Your task to perform on an android device: Open wifi settings Image 0: 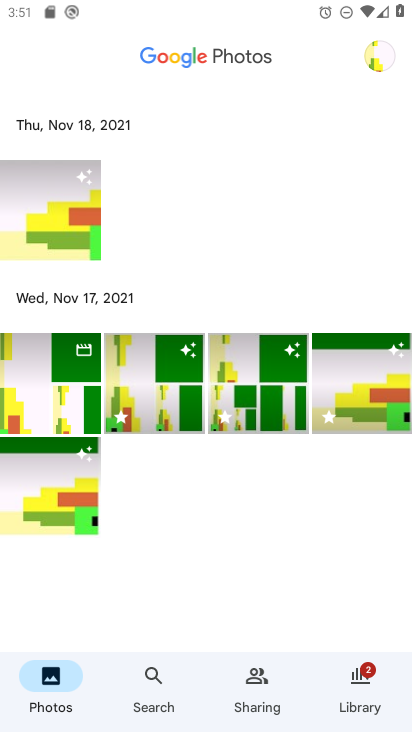
Step 0: press home button
Your task to perform on an android device: Open wifi settings Image 1: 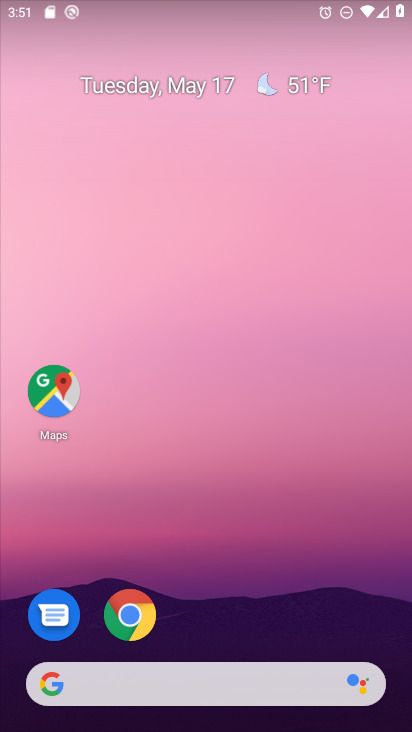
Step 1: drag from (221, 647) to (219, 108)
Your task to perform on an android device: Open wifi settings Image 2: 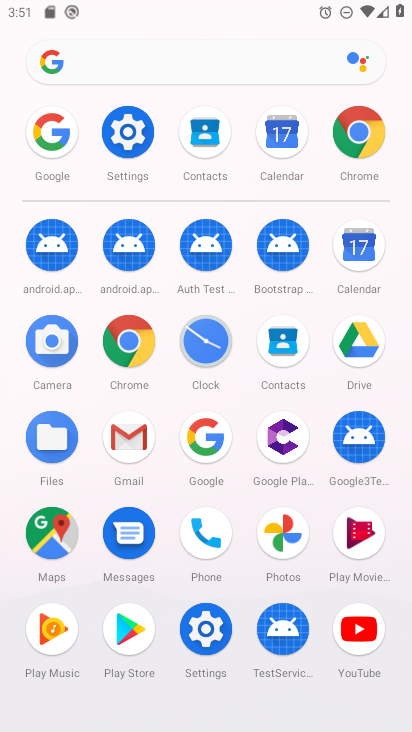
Step 2: click (126, 123)
Your task to perform on an android device: Open wifi settings Image 3: 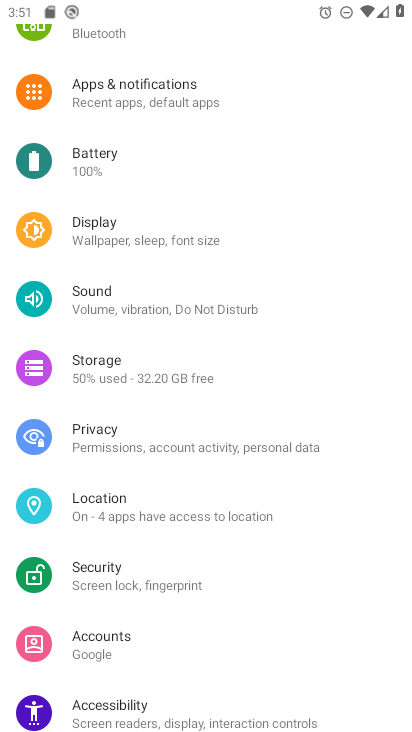
Step 3: drag from (165, 138) to (228, 649)
Your task to perform on an android device: Open wifi settings Image 4: 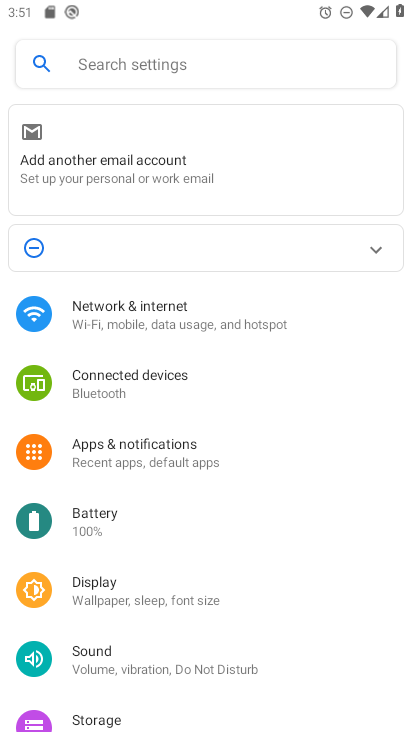
Step 4: click (199, 301)
Your task to perform on an android device: Open wifi settings Image 5: 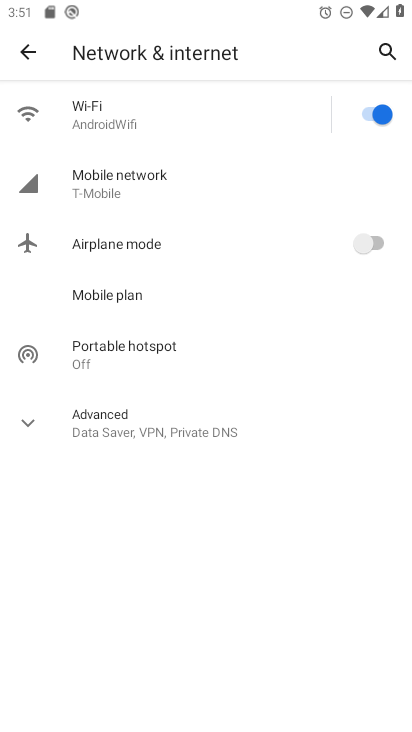
Step 5: click (161, 116)
Your task to perform on an android device: Open wifi settings Image 6: 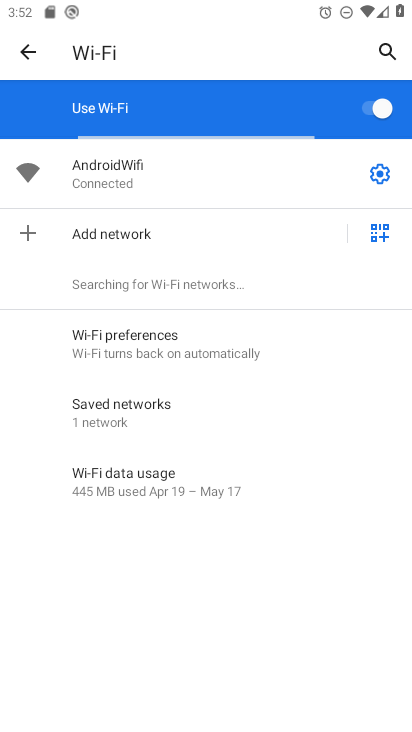
Step 6: task complete